Your task to perform on an android device: uninstall "Google Play Games" Image 0: 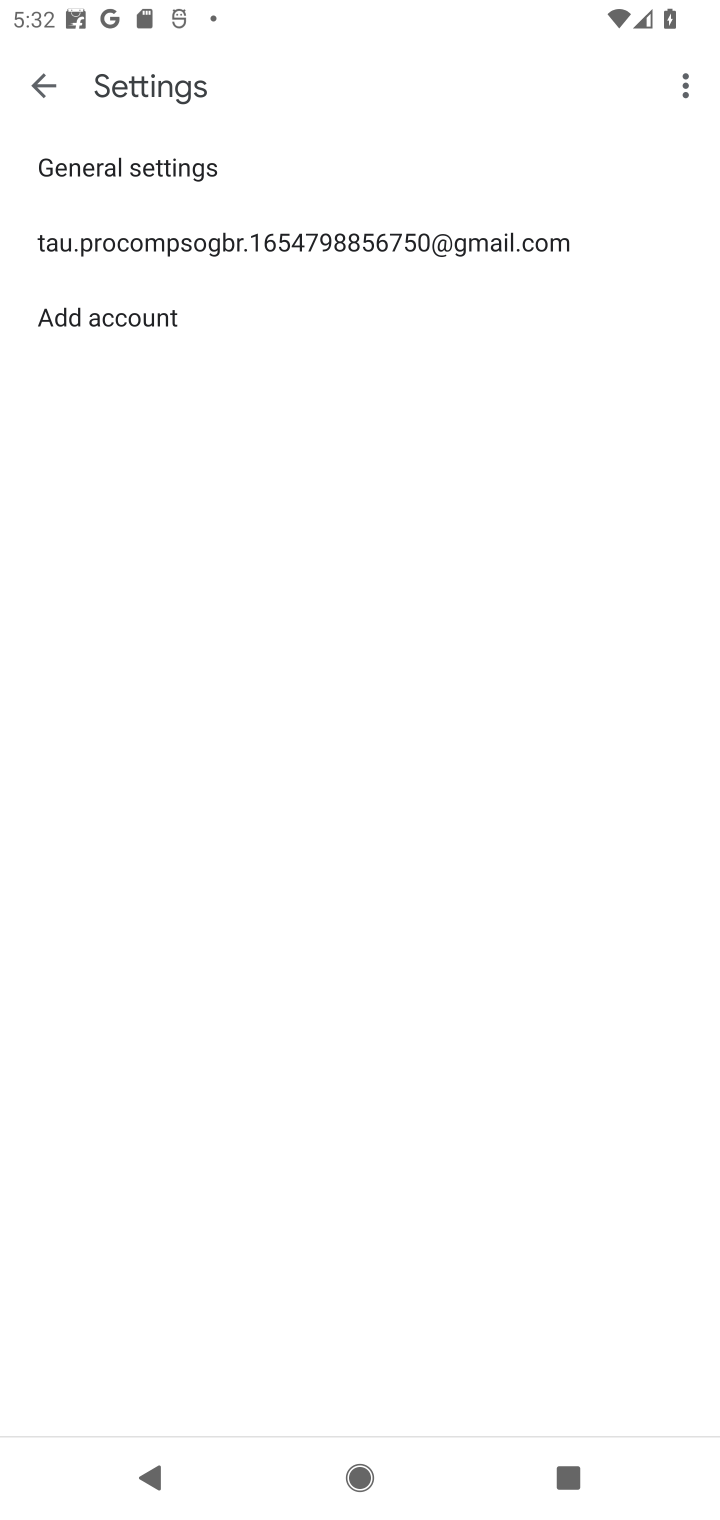
Step 0: press home button
Your task to perform on an android device: uninstall "Google Play Games" Image 1: 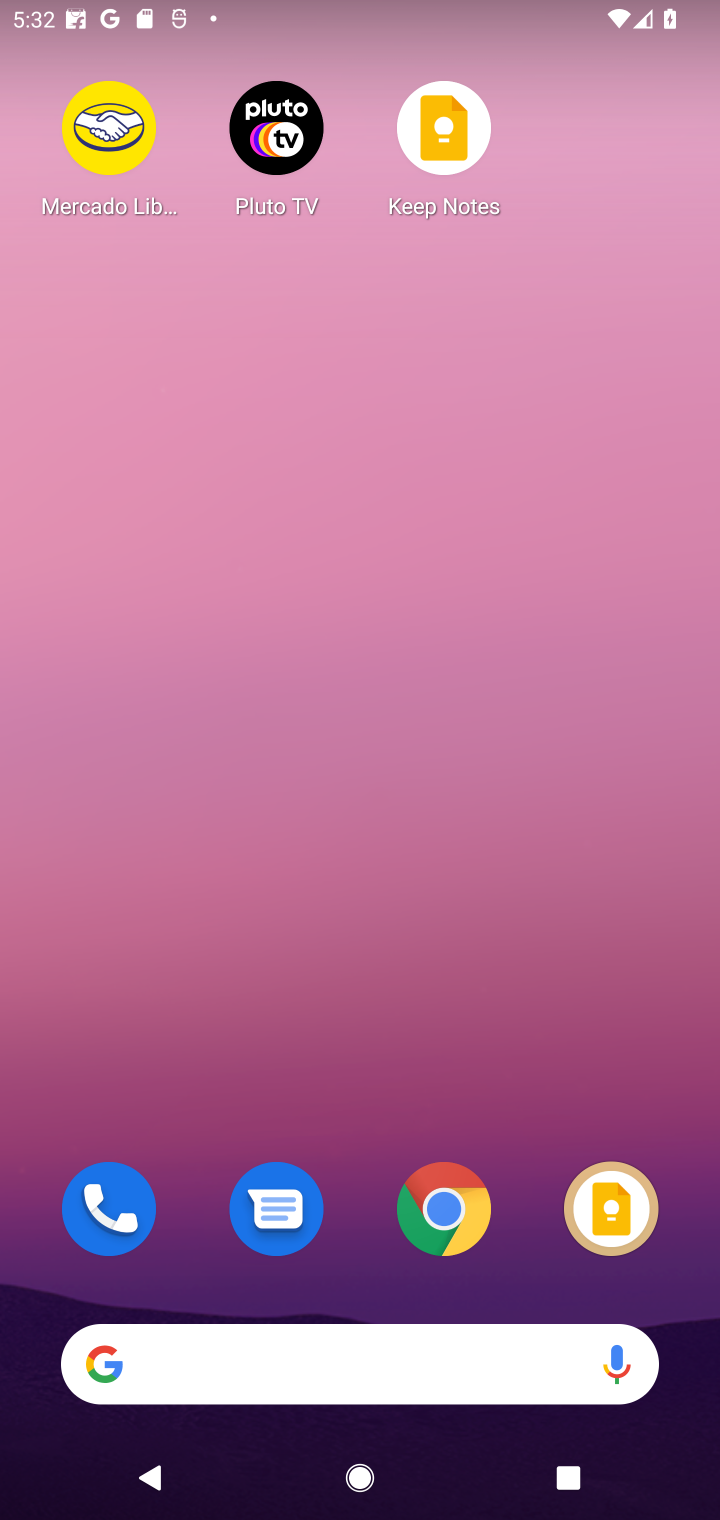
Step 1: drag from (518, 1305) to (497, 642)
Your task to perform on an android device: uninstall "Google Play Games" Image 2: 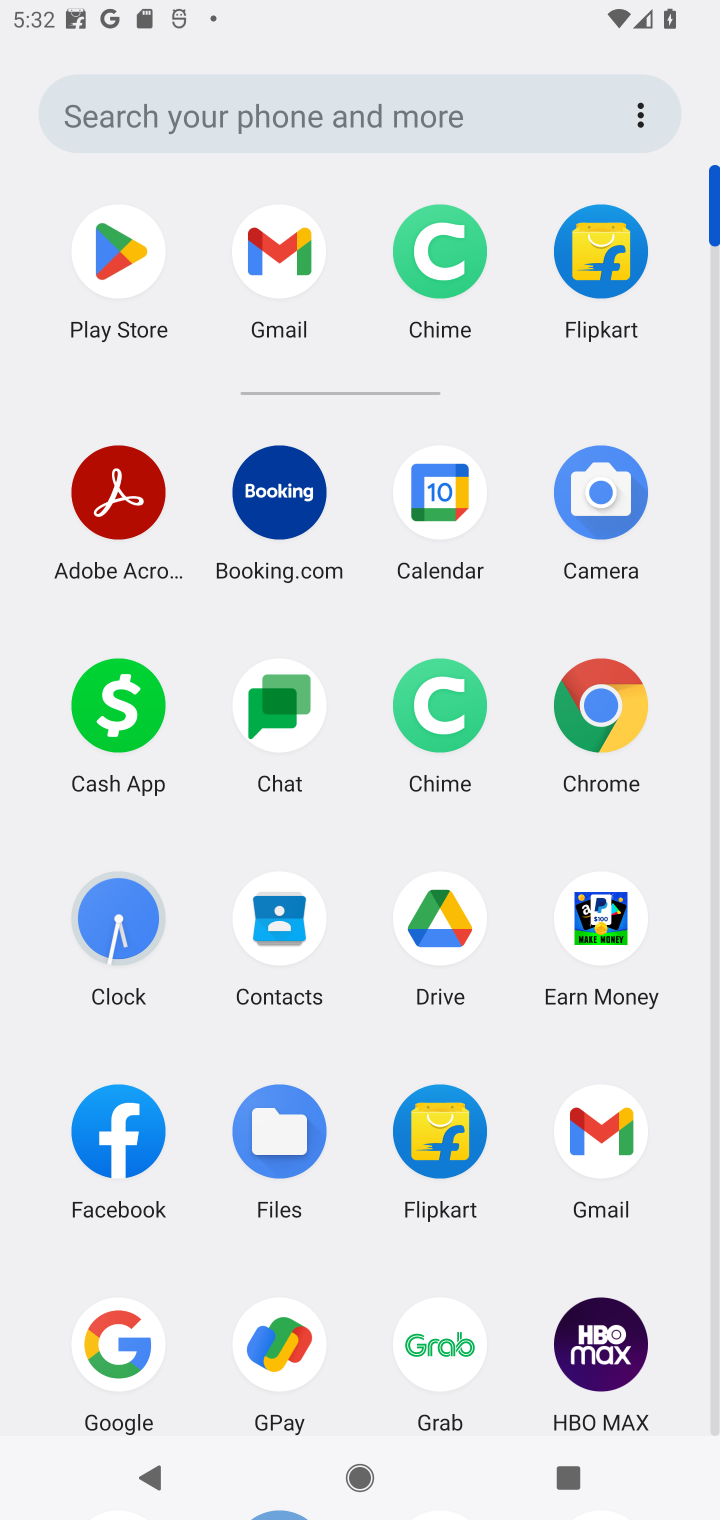
Step 2: click (129, 261)
Your task to perform on an android device: uninstall "Google Play Games" Image 3: 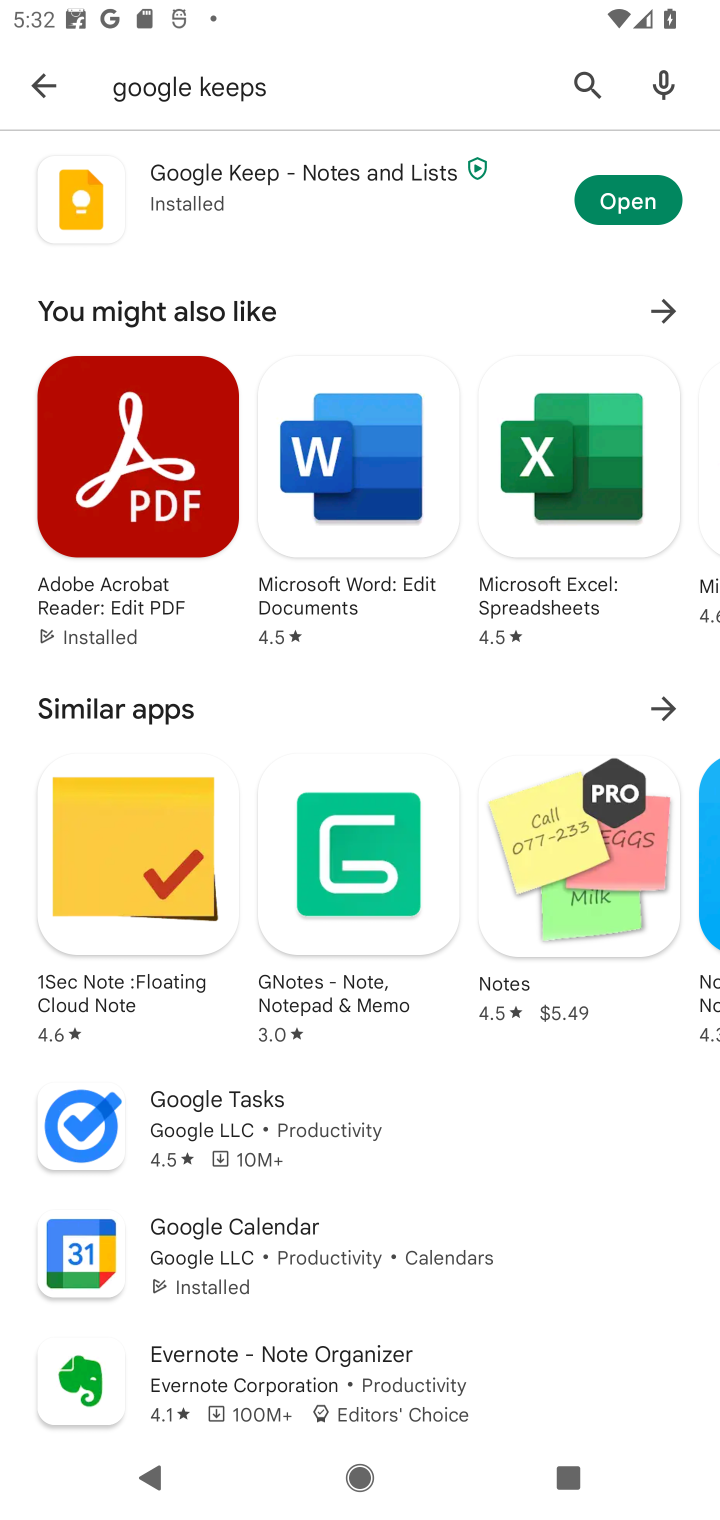
Step 3: click (573, 96)
Your task to perform on an android device: uninstall "Google Play Games" Image 4: 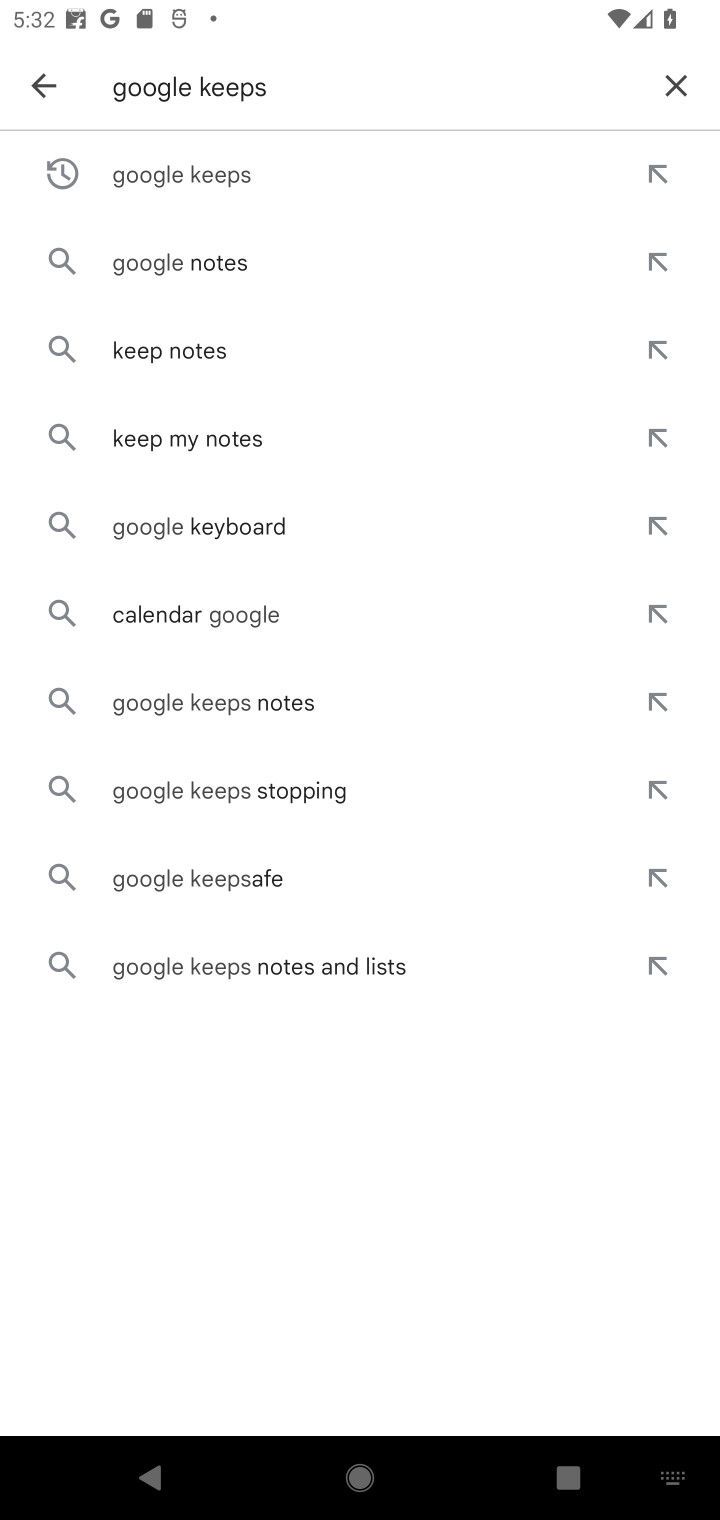
Step 4: click (660, 99)
Your task to perform on an android device: uninstall "Google Play Games" Image 5: 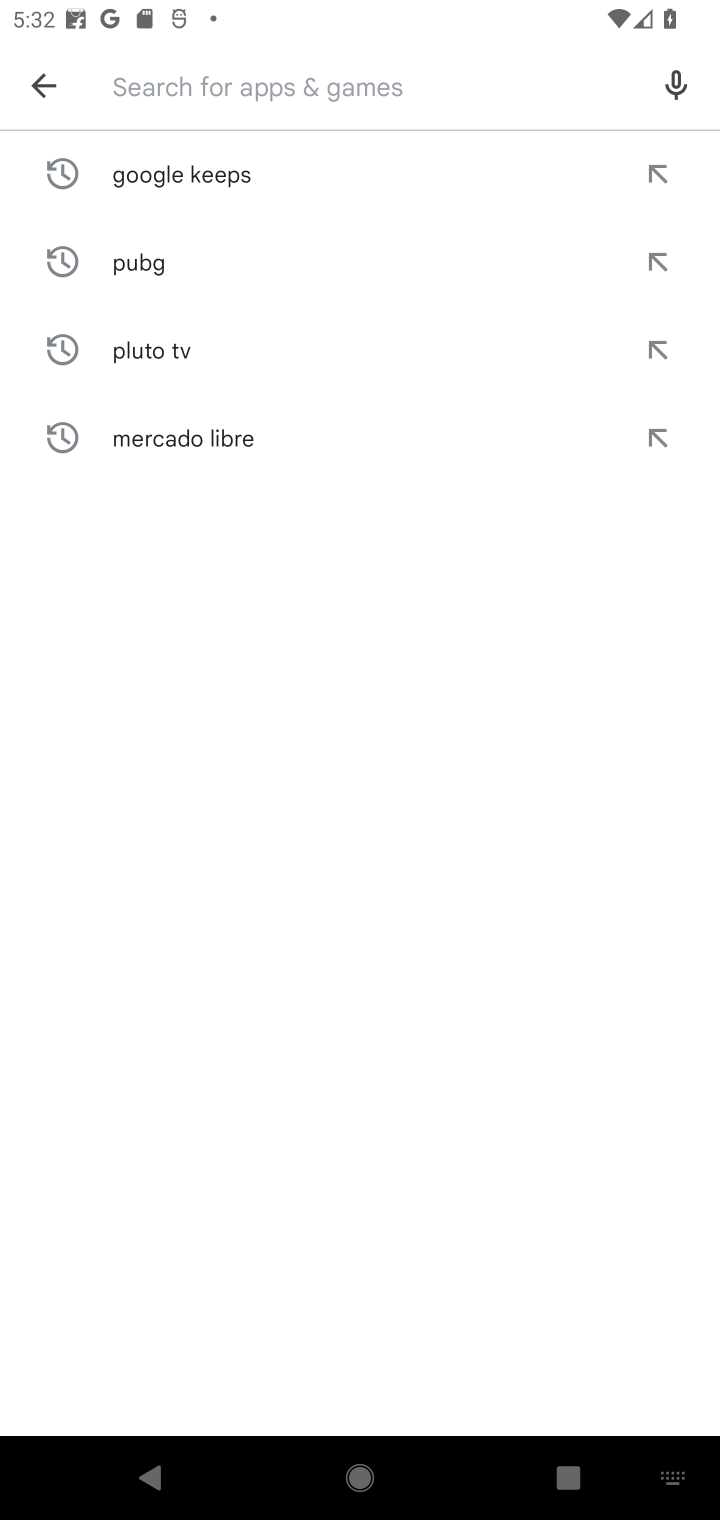
Step 5: type "google play"
Your task to perform on an android device: uninstall "Google Play Games" Image 6: 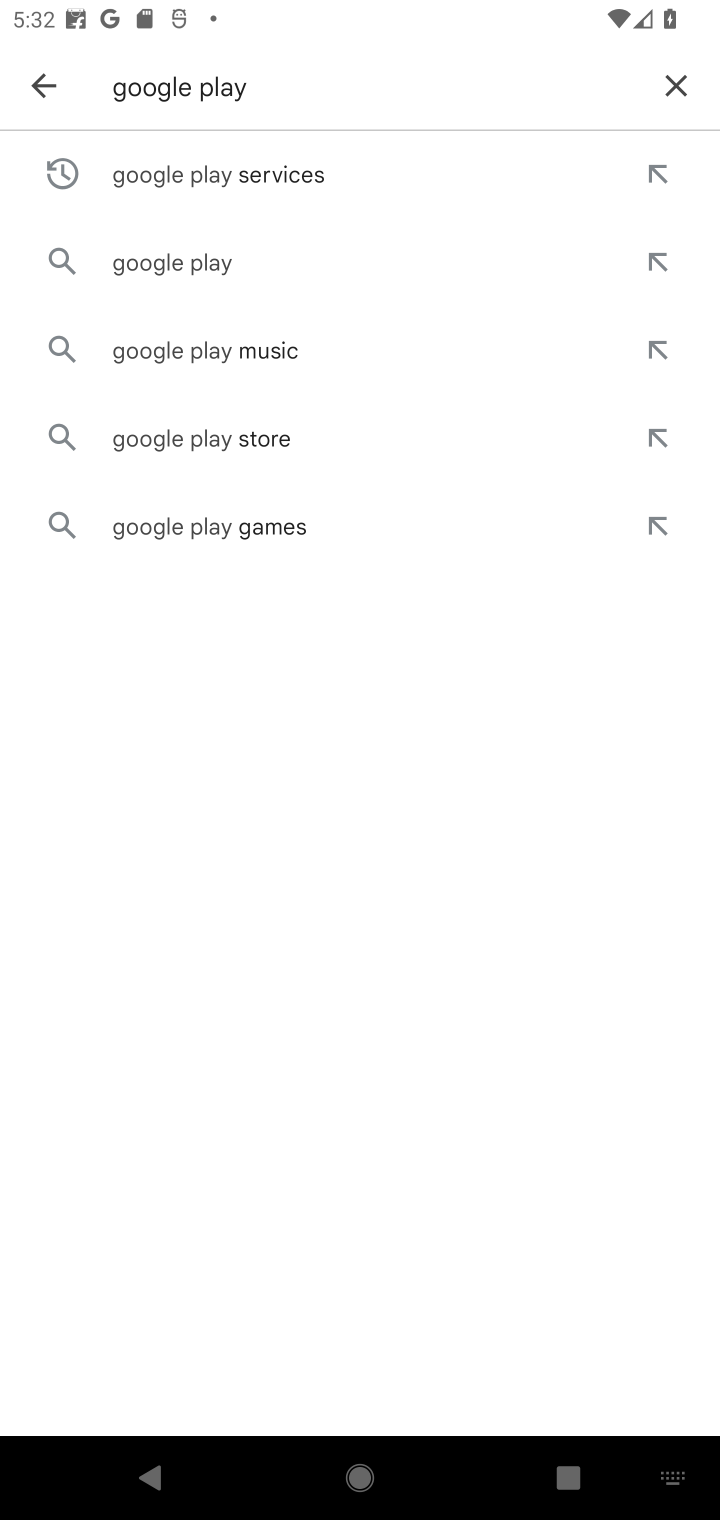
Step 6: click (357, 192)
Your task to perform on an android device: uninstall "Google Play Games" Image 7: 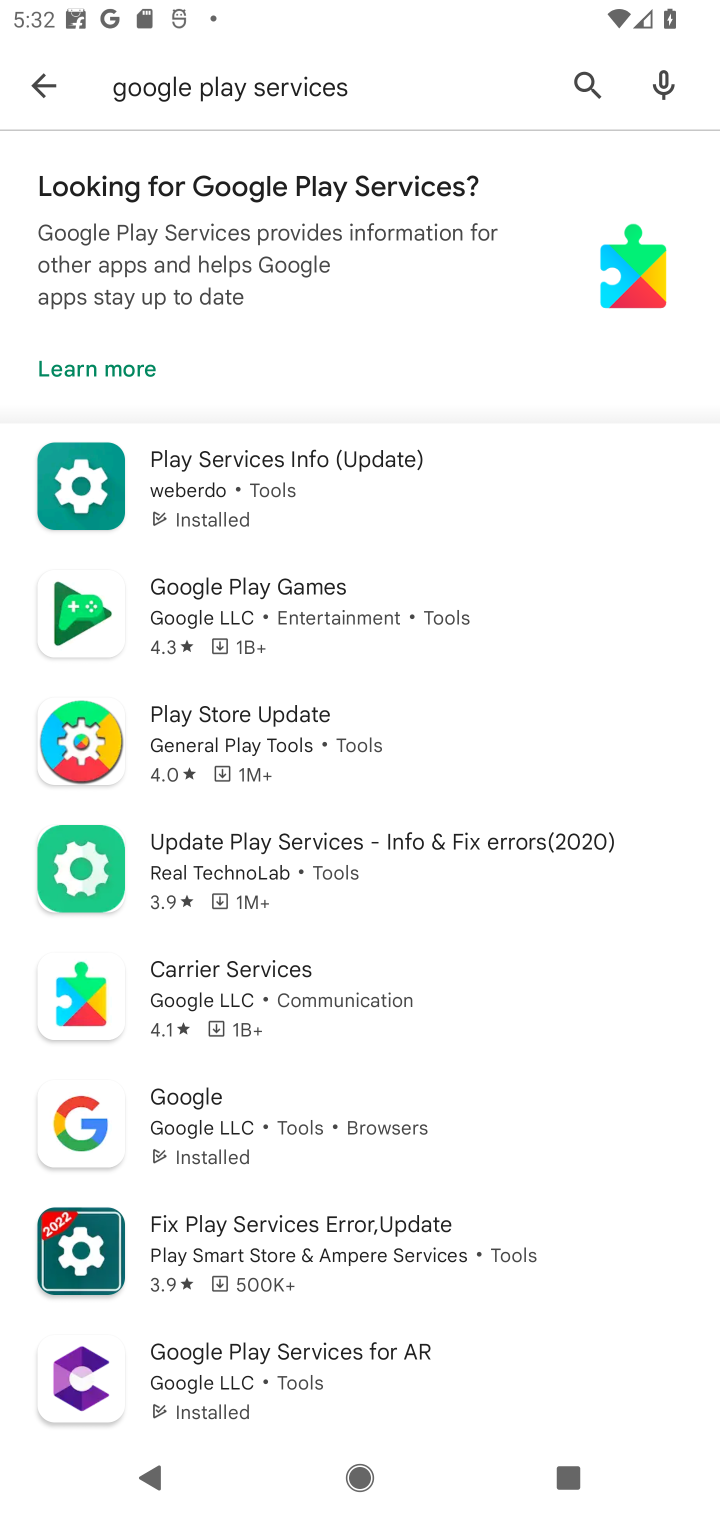
Step 7: task complete